Your task to perform on an android device: open a bookmark in the chrome app Image 0: 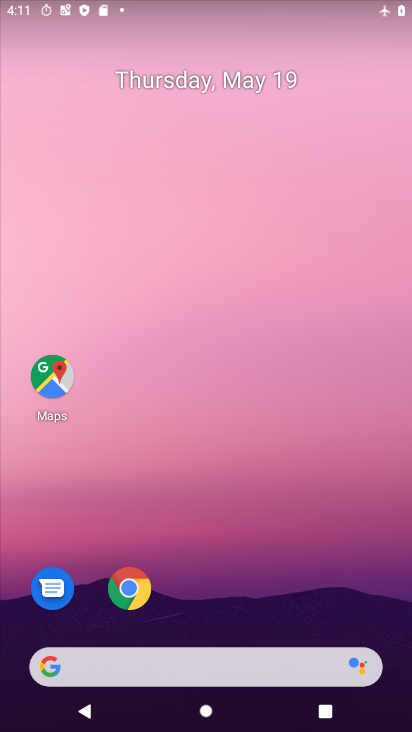
Step 0: click (132, 599)
Your task to perform on an android device: open a bookmark in the chrome app Image 1: 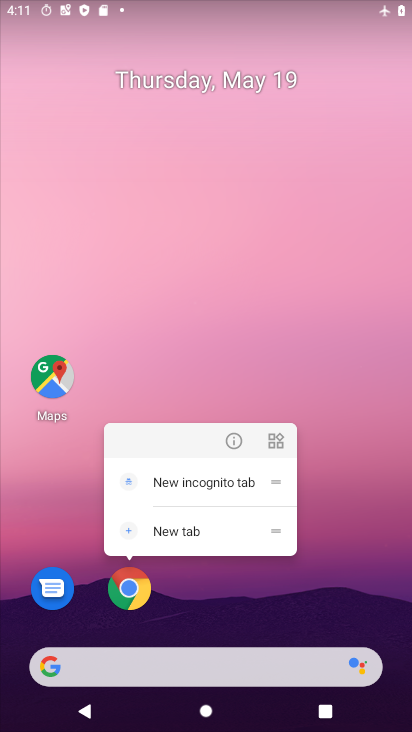
Step 1: click (130, 596)
Your task to perform on an android device: open a bookmark in the chrome app Image 2: 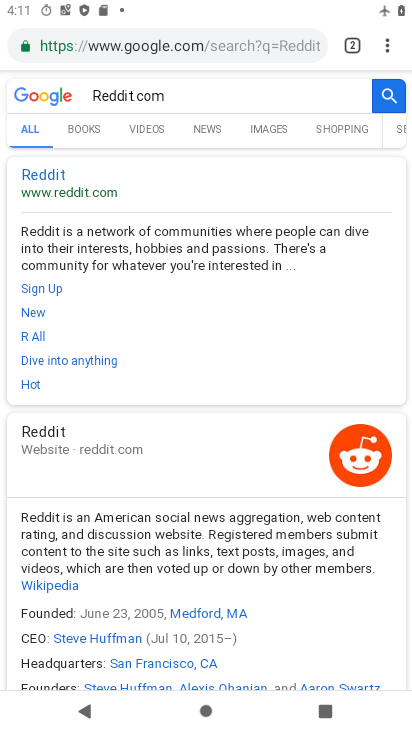
Step 2: click (391, 55)
Your task to perform on an android device: open a bookmark in the chrome app Image 3: 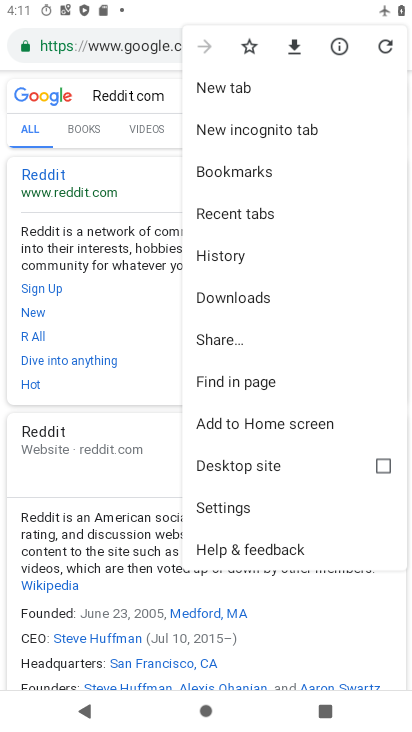
Step 3: click (255, 169)
Your task to perform on an android device: open a bookmark in the chrome app Image 4: 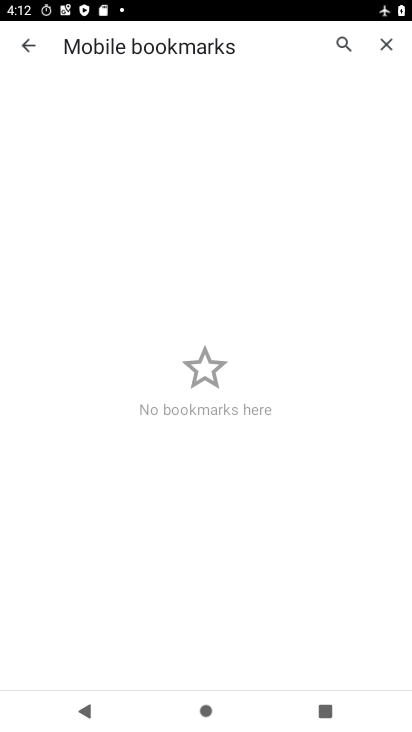
Step 4: task complete